Your task to perform on an android device: When is my next meeting? Image 0: 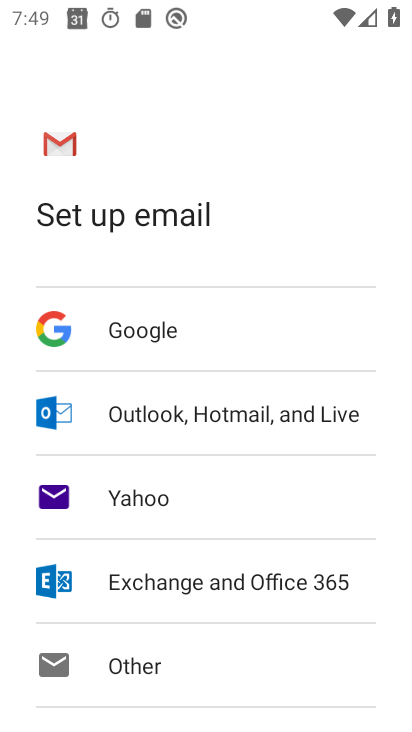
Step 0: press home button
Your task to perform on an android device: When is my next meeting? Image 1: 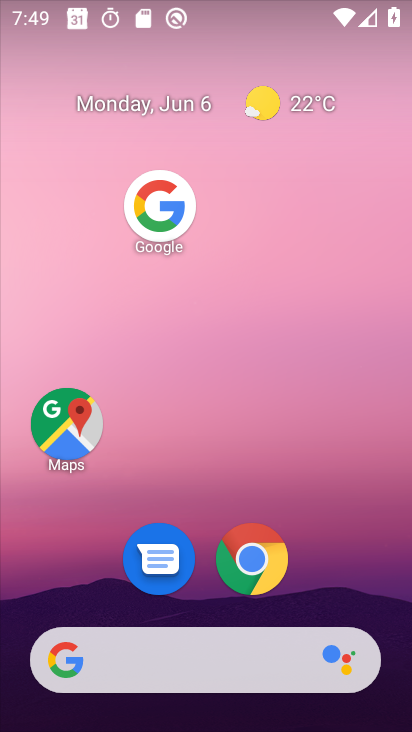
Step 1: drag from (212, 580) to (208, 201)
Your task to perform on an android device: When is my next meeting? Image 2: 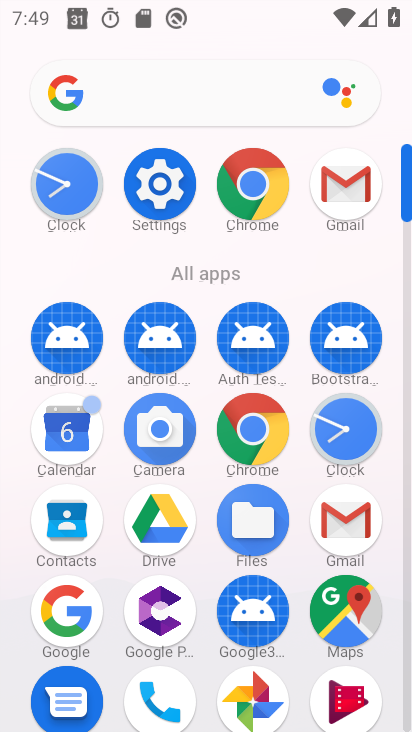
Step 2: click (71, 432)
Your task to perform on an android device: When is my next meeting? Image 3: 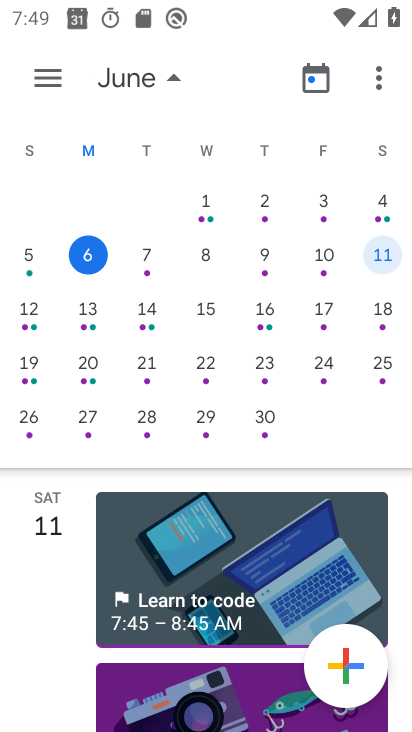
Step 3: click (53, 74)
Your task to perform on an android device: When is my next meeting? Image 4: 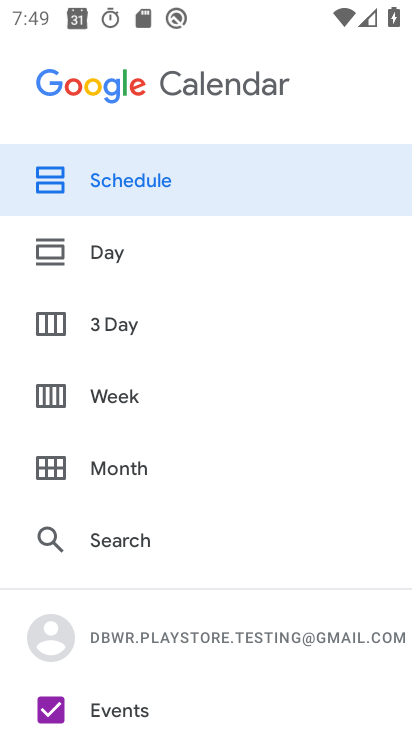
Step 4: drag from (157, 662) to (214, 323)
Your task to perform on an android device: When is my next meeting? Image 5: 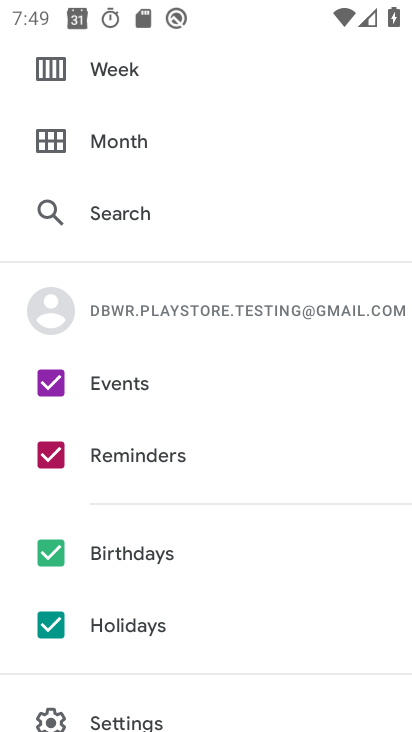
Step 5: click (48, 624)
Your task to perform on an android device: When is my next meeting? Image 6: 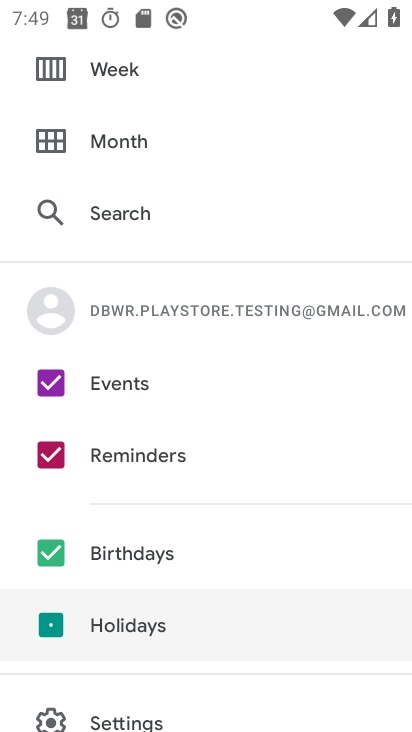
Step 6: click (43, 554)
Your task to perform on an android device: When is my next meeting? Image 7: 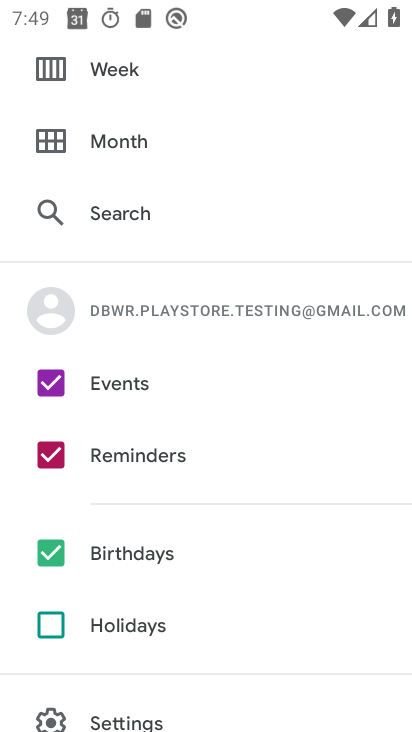
Step 7: click (49, 544)
Your task to perform on an android device: When is my next meeting? Image 8: 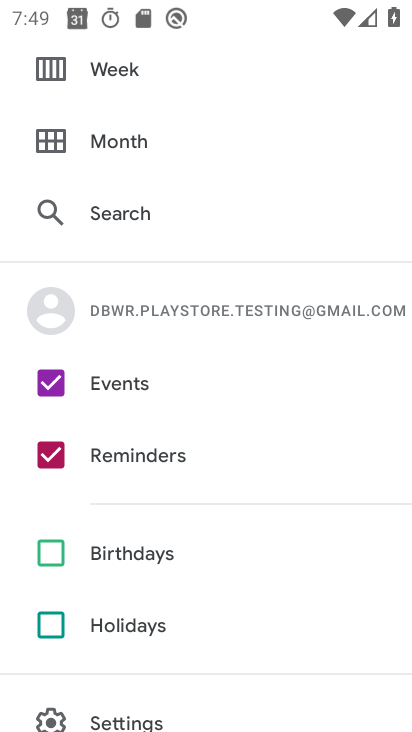
Step 8: click (93, 147)
Your task to perform on an android device: When is my next meeting? Image 9: 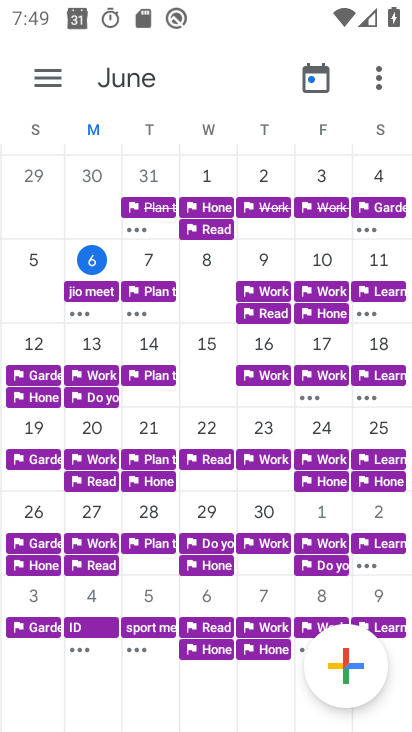
Step 9: click (104, 294)
Your task to perform on an android device: When is my next meeting? Image 10: 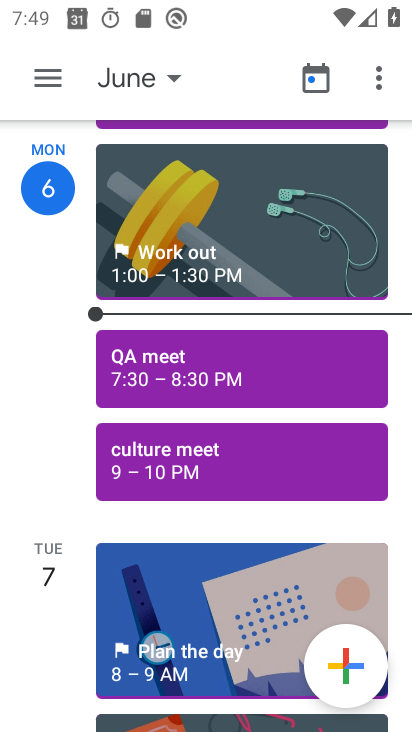
Step 10: task complete